Your task to perform on an android device: Search for seafood restaurants on Google Maps Image 0: 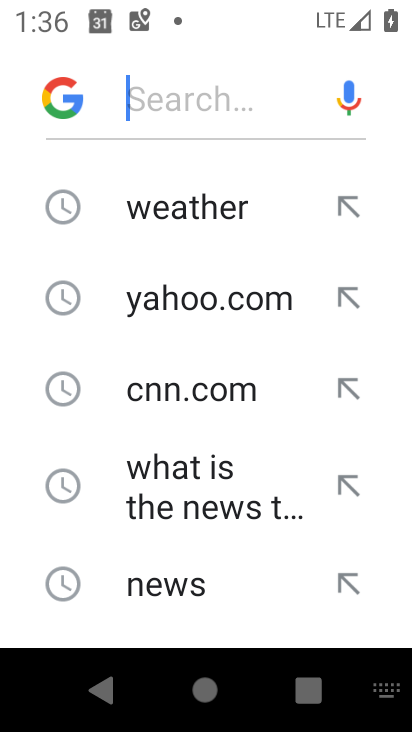
Step 0: press home button
Your task to perform on an android device: Search for seafood restaurants on Google Maps Image 1: 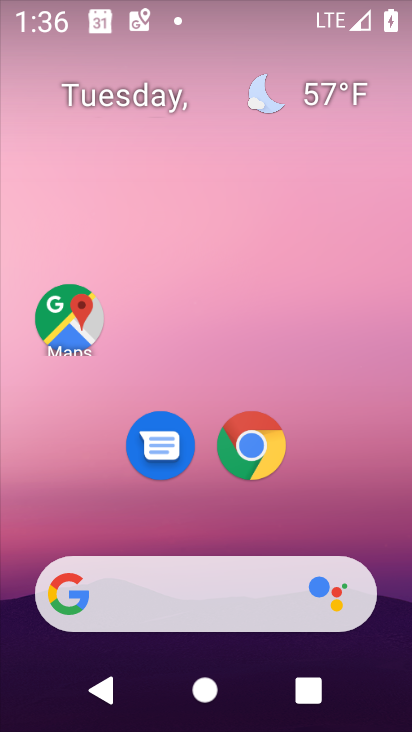
Step 1: drag from (365, 513) to (336, 128)
Your task to perform on an android device: Search for seafood restaurants on Google Maps Image 2: 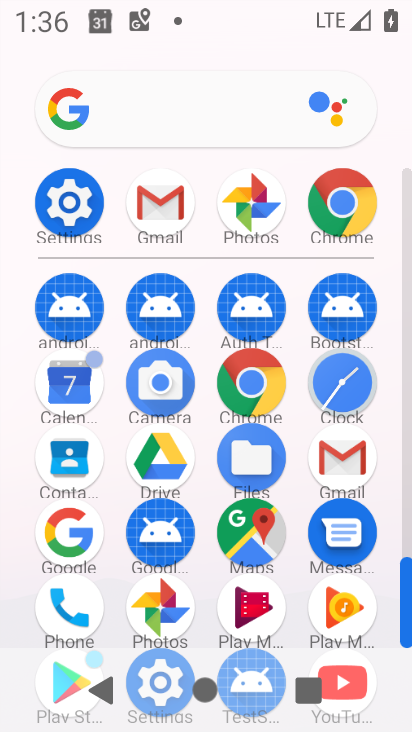
Step 2: click (264, 536)
Your task to perform on an android device: Search for seafood restaurants on Google Maps Image 3: 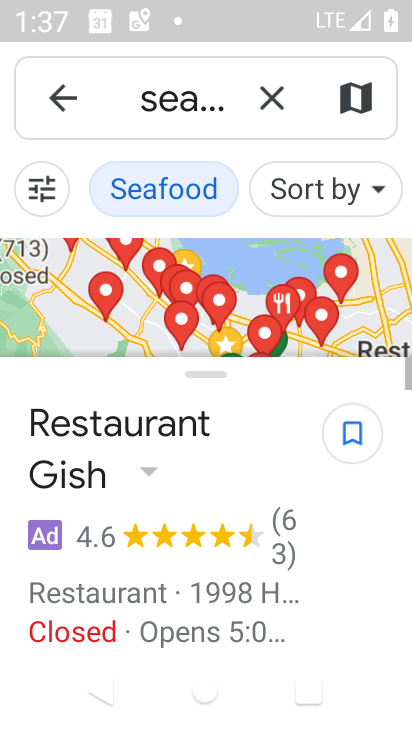
Step 3: click (264, 105)
Your task to perform on an android device: Search for seafood restaurants on Google Maps Image 4: 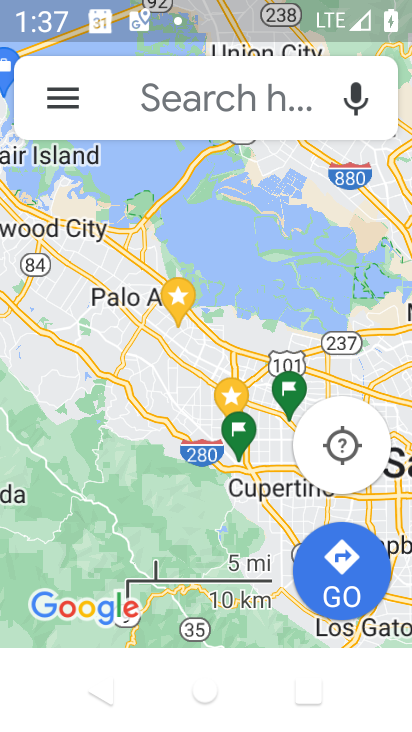
Step 4: click (242, 100)
Your task to perform on an android device: Search for seafood restaurants on Google Maps Image 5: 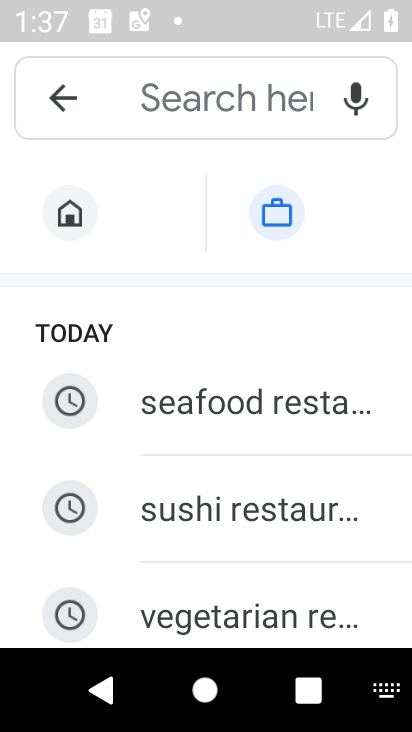
Step 5: type "seafood restaurants"
Your task to perform on an android device: Search for seafood restaurants on Google Maps Image 6: 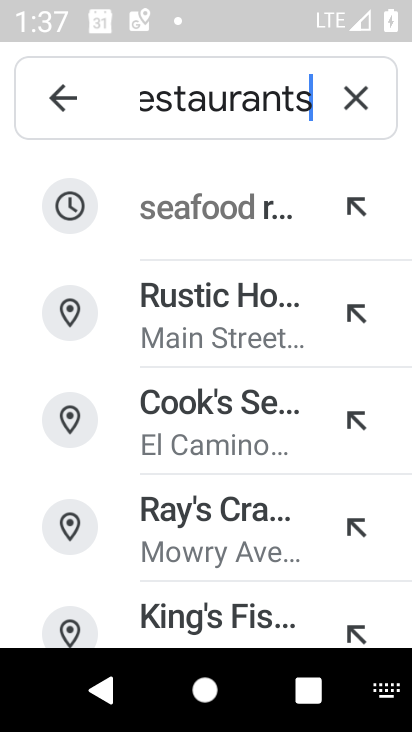
Step 6: click (251, 223)
Your task to perform on an android device: Search for seafood restaurants on Google Maps Image 7: 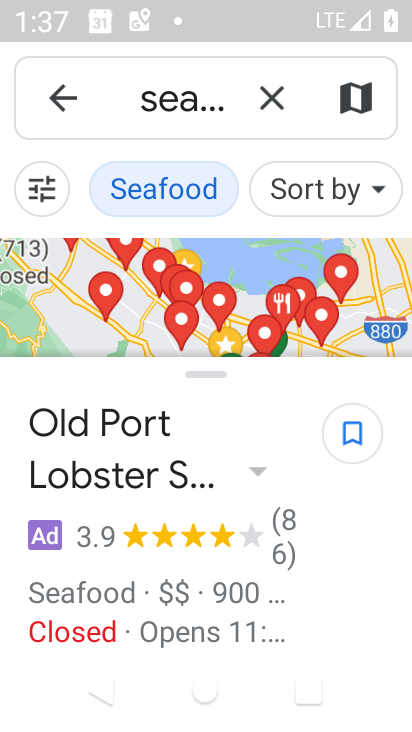
Step 7: task complete